Your task to perform on an android device: How do I get to the nearest Target? Image 0: 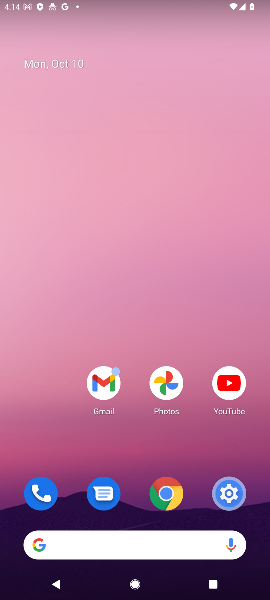
Step 0: click (164, 545)
Your task to perform on an android device: How do I get to the nearest Target? Image 1: 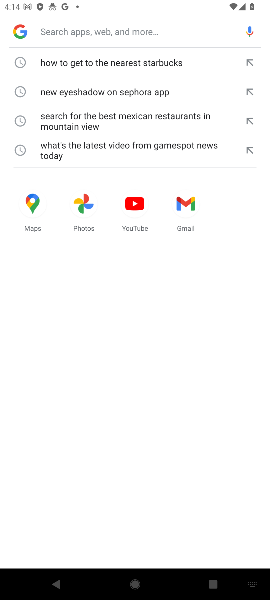
Step 1: type "How do I get to the nearest Target?"
Your task to perform on an android device: How do I get to the nearest Target? Image 2: 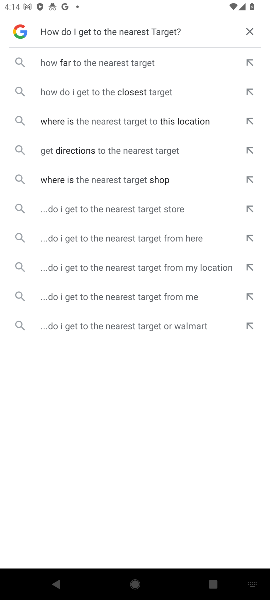
Step 2: click (164, 60)
Your task to perform on an android device: How do I get to the nearest Target? Image 3: 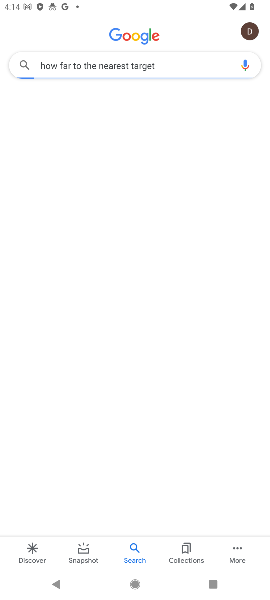
Step 3: task complete